Your task to perform on an android device: turn on airplane mode Image 0: 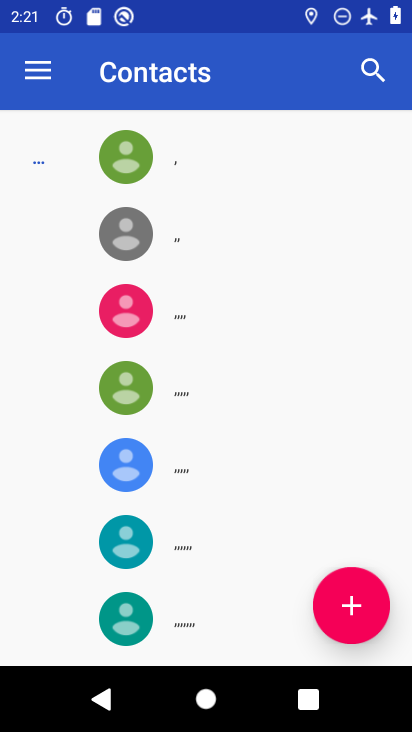
Step 0: press home button
Your task to perform on an android device: turn on airplane mode Image 1: 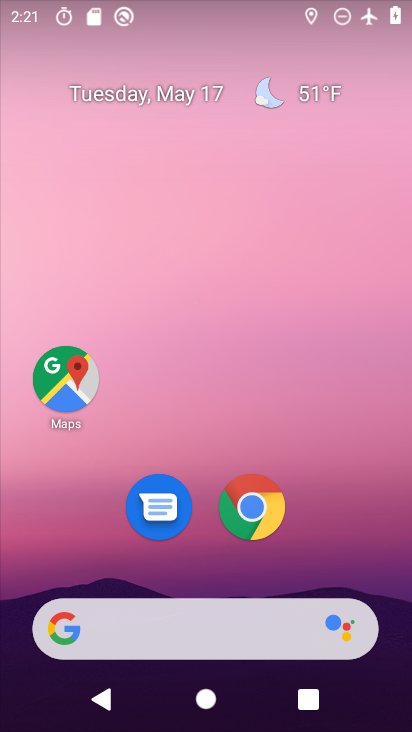
Step 1: drag from (211, 504) to (292, 121)
Your task to perform on an android device: turn on airplane mode Image 2: 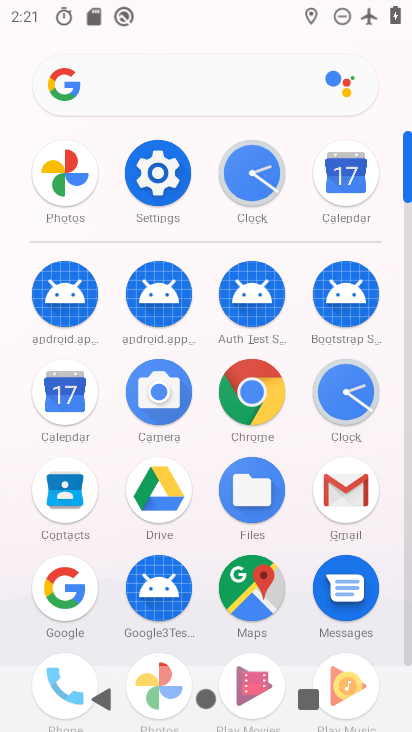
Step 2: click (146, 181)
Your task to perform on an android device: turn on airplane mode Image 3: 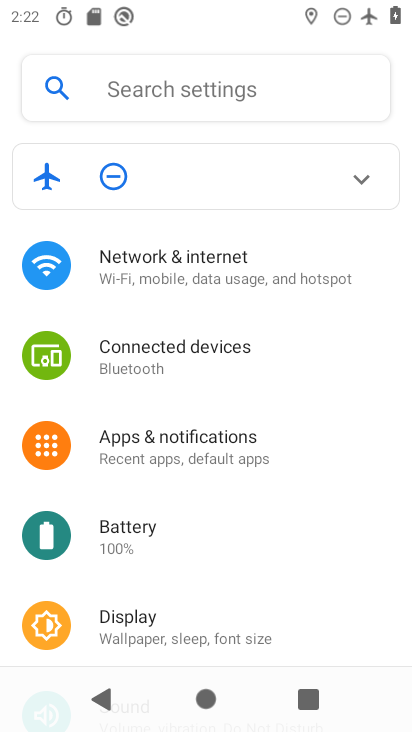
Step 3: click (240, 274)
Your task to perform on an android device: turn on airplane mode Image 4: 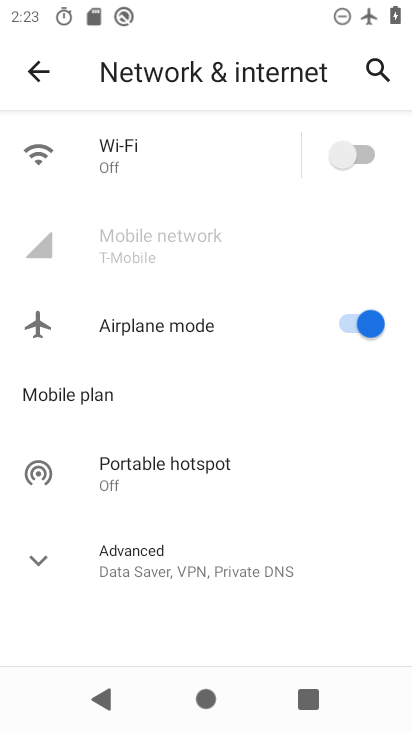
Step 4: task complete